Your task to perform on an android device: toggle data saver in the chrome app Image 0: 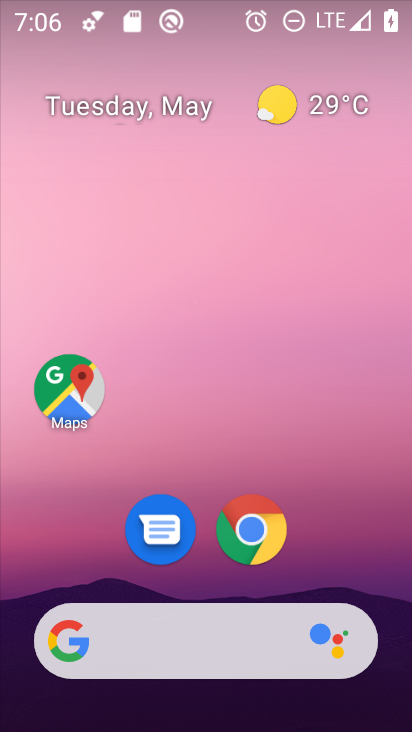
Step 0: drag from (383, 548) to (264, 80)
Your task to perform on an android device: toggle data saver in the chrome app Image 1: 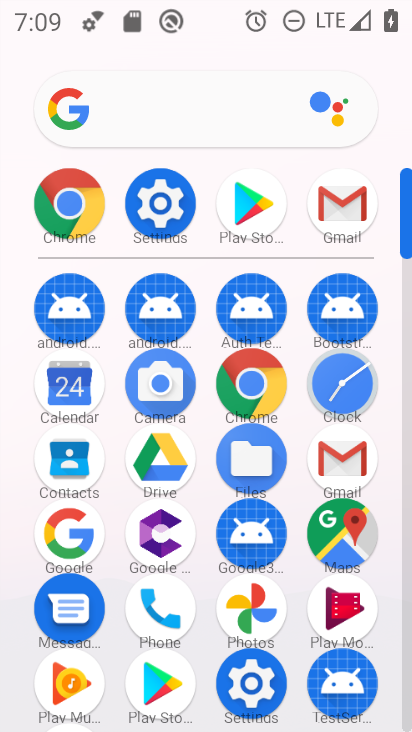
Step 1: click (84, 210)
Your task to perform on an android device: toggle data saver in the chrome app Image 2: 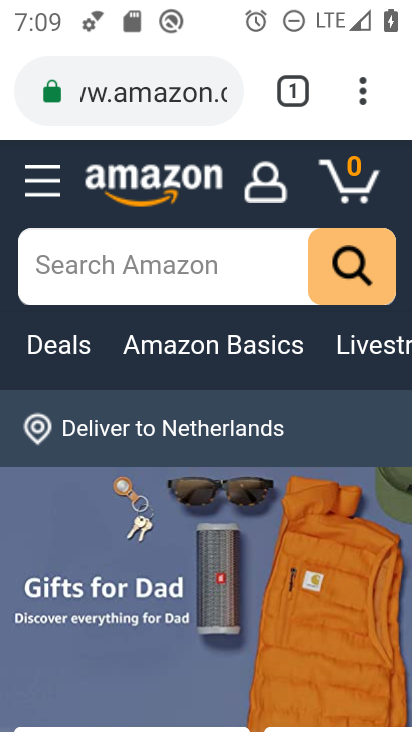
Step 2: press back button
Your task to perform on an android device: toggle data saver in the chrome app Image 3: 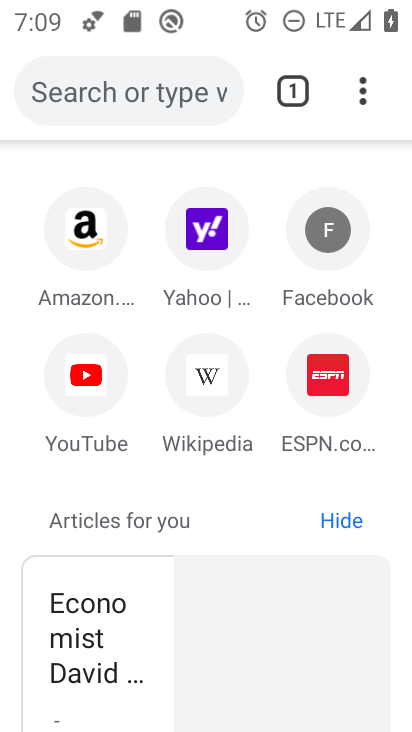
Step 3: click (364, 92)
Your task to perform on an android device: toggle data saver in the chrome app Image 4: 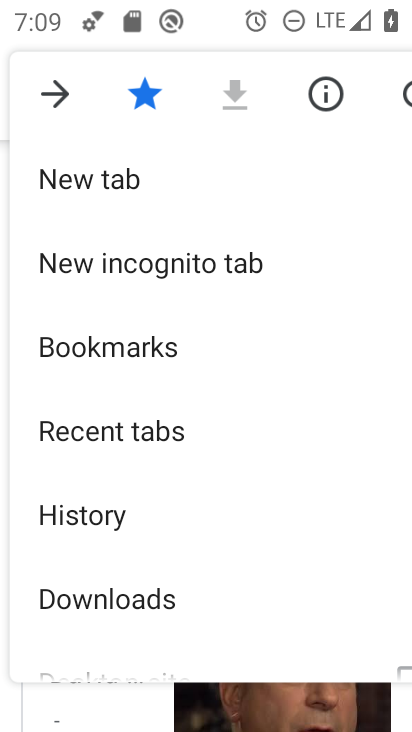
Step 4: drag from (142, 619) to (117, 122)
Your task to perform on an android device: toggle data saver in the chrome app Image 5: 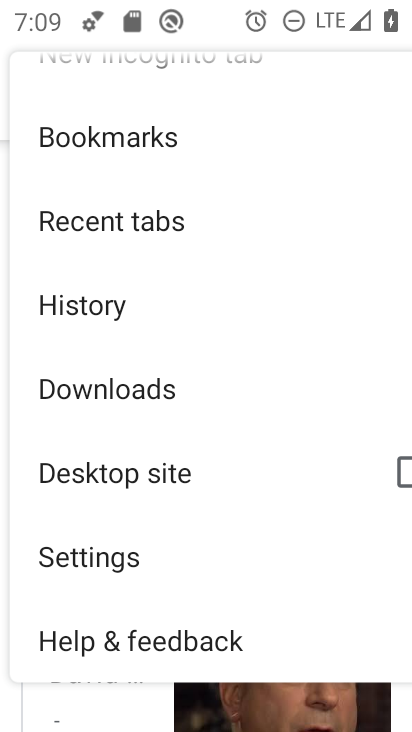
Step 5: click (109, 563)
Your task to perform on an android device: toggle data saver in the chrome app Image 6: 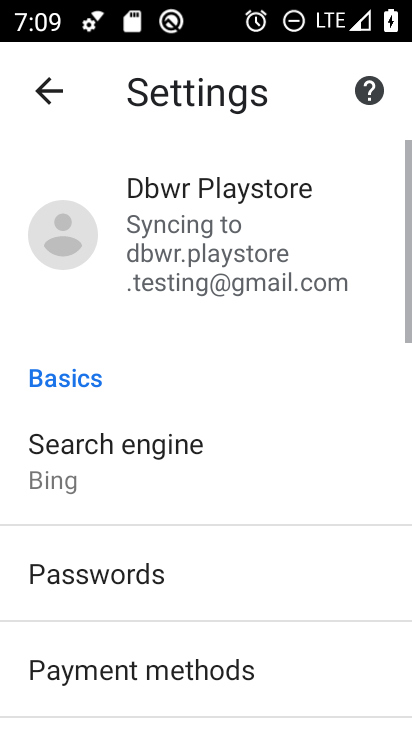
Step 6: drag from (128, 637) to (96, 190)
Your task to perform on an android device: toggle data saver in the chrome app Image 7: 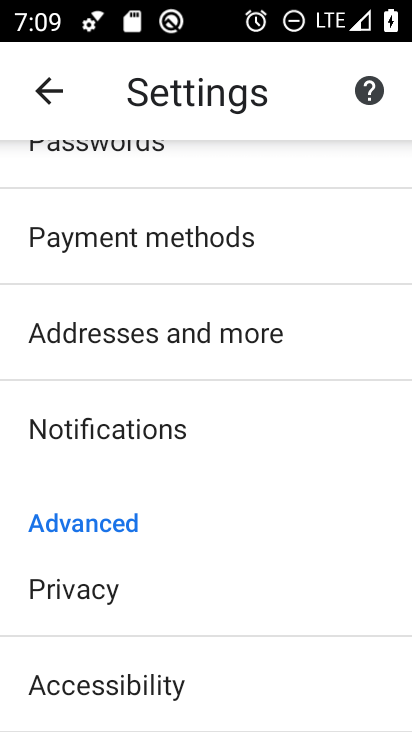
Step 7: drag from (125, 655) to (122, 227)
Your task to perform on an android device: toggle data saver in the chrome app Image 8: 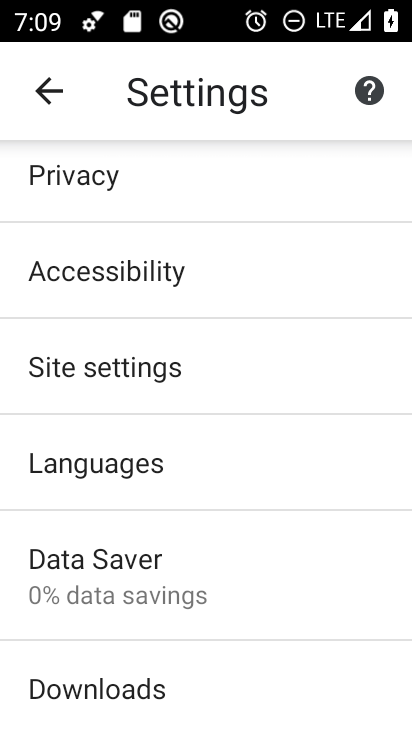
Step 8: click (209, 586)
Your task to perform on an android device: toggle data saver in the chrome app Image 9: 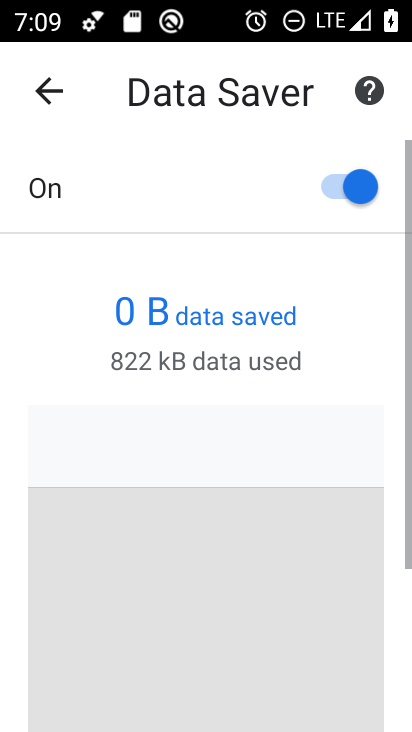
Step 9: click (377, 186)
Your task to perform on an android device: toggle data saver in the chrome app Image 10: 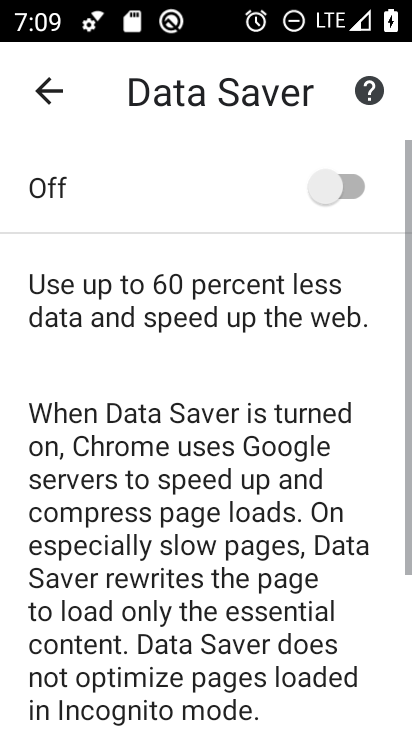
Step 10: task complete